Your task to perform on an android device: open a bookmark in the chrome app Image 0: 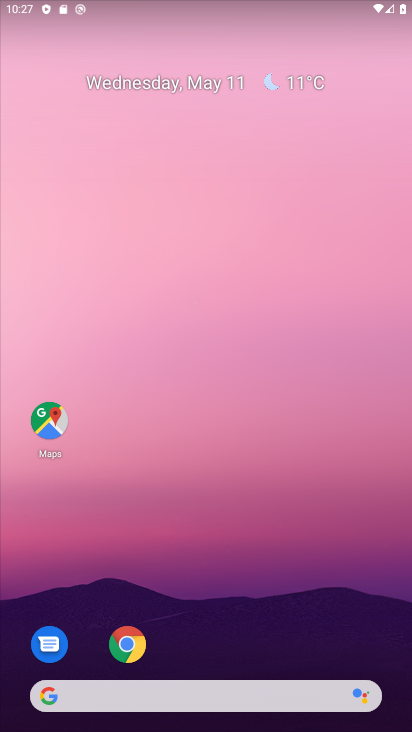
Step 0: click (121, 655)
Your task to perform on an android device: open a bookmark in the chrome app Image 1: 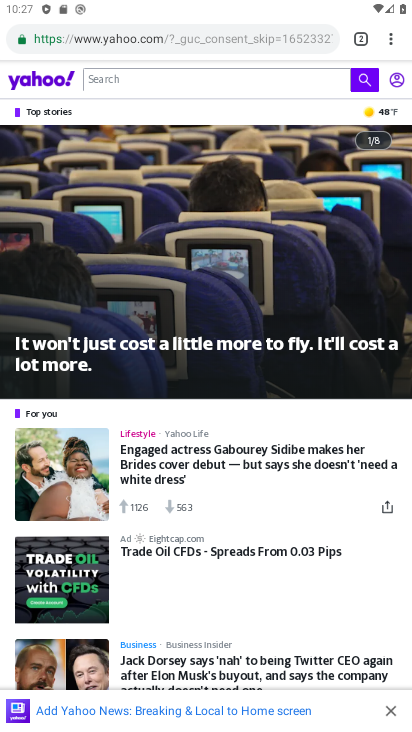
Step 1: click (394, 40)
Your task to perform on an android device: open a bookmark in the chrome app Image 2: 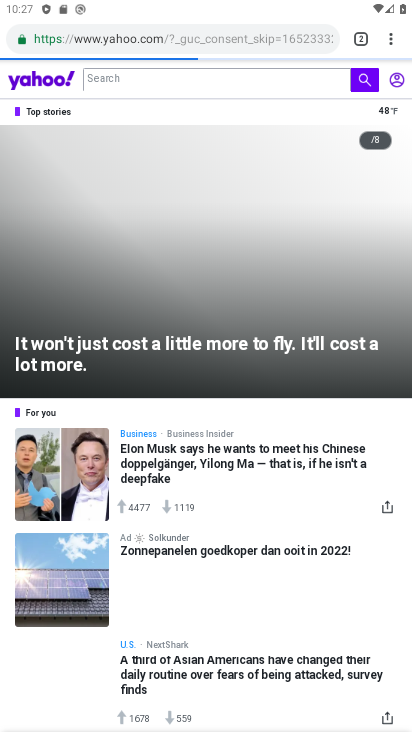
Step 2: click (391, 35)
Your task to perform on an android device: open a bookmark in the chrome app Image 3: 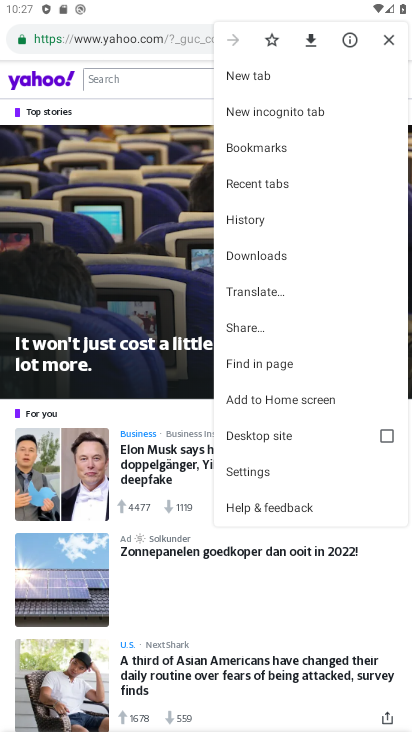
Step 3: click (246, 145)
Your task to perform on an android device: open a bookmark in the chrome app Image 4: 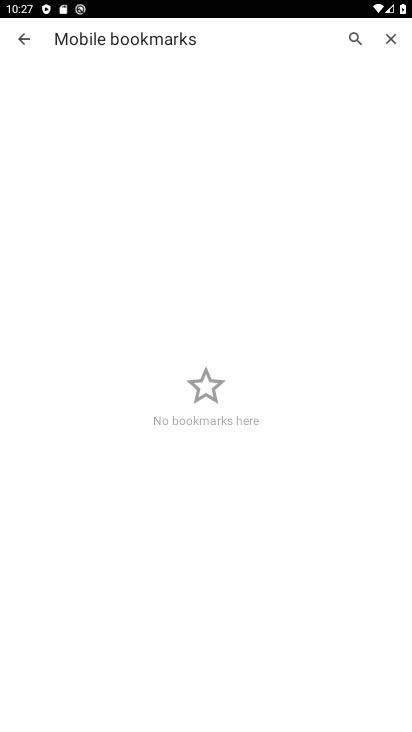
Step 4: task complete